Your task to perform on an android device: change the clock display to analog Image 0: 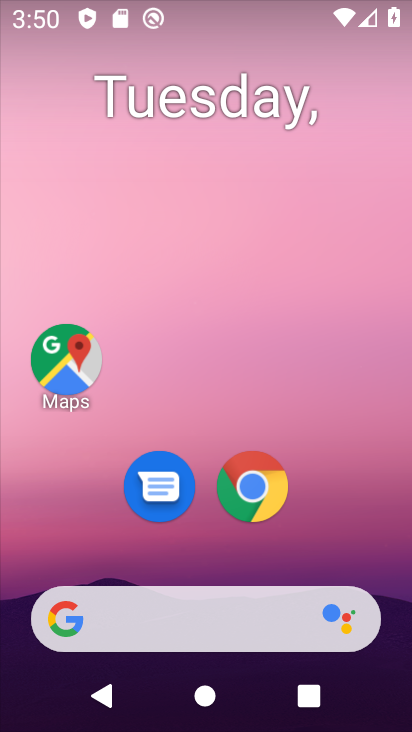
Step 0: drag from (334, 539) to (281, 193)
Your task to perform on an android device: change the clock display to analog Image 1: 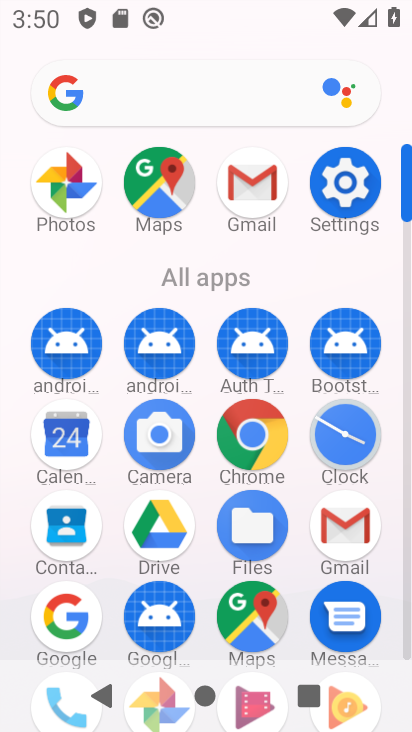
Step 1: click (338, 447)
Your task to perform on an android device: change the clock display to analog Image 2: 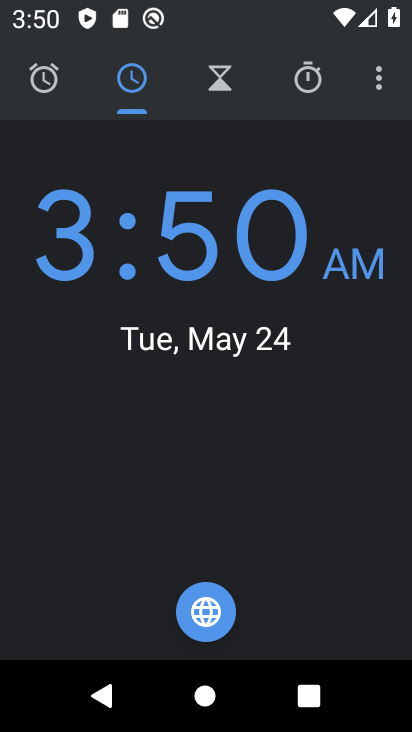
Step 2: click (360, 71)
Your task to perform on an android device: change the clock display to analog Image 3: 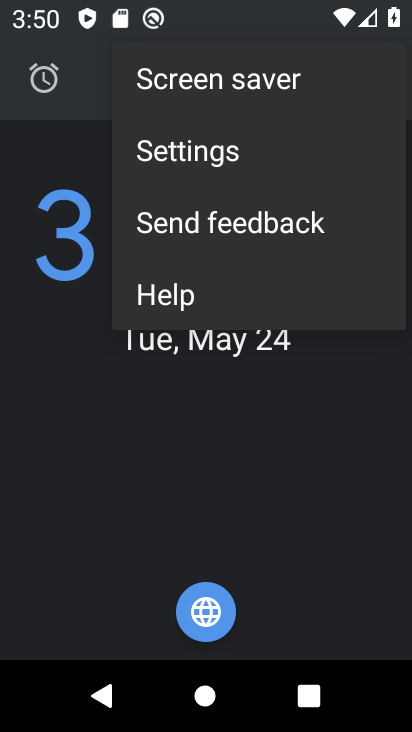
Step 3: click (277, 148)
Your task to perform on an android device: change the clock display to analog Image 4: 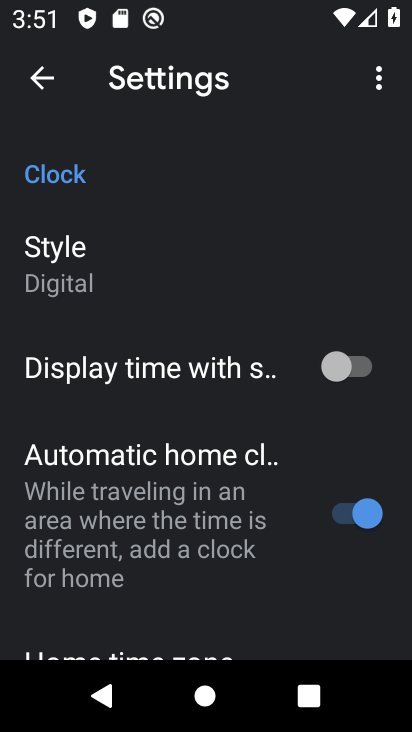
Step 4: click (55, 263)
Your task to perform on an android device: change the clock display to analog Image 5: 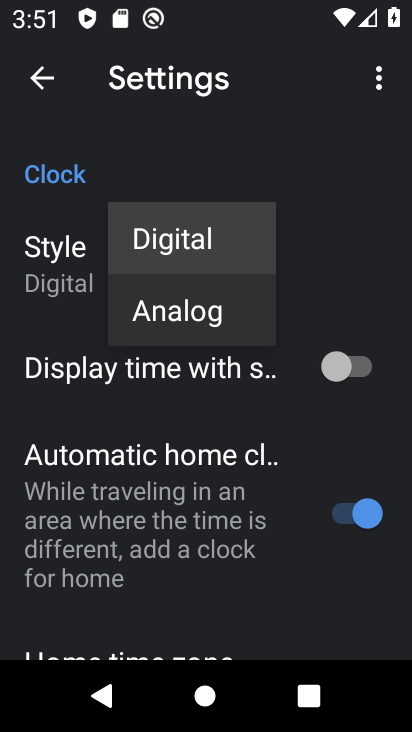
Step 5: click (229, 311)
Your task to perform on an android device: change the clock display to analog Image 6: 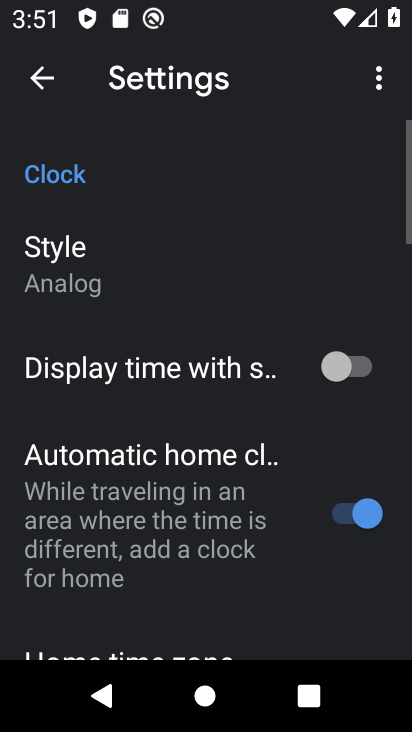
Step 6: task complete